Your task to perform on an android device: turn on the 12-hour format for clock Image 0: 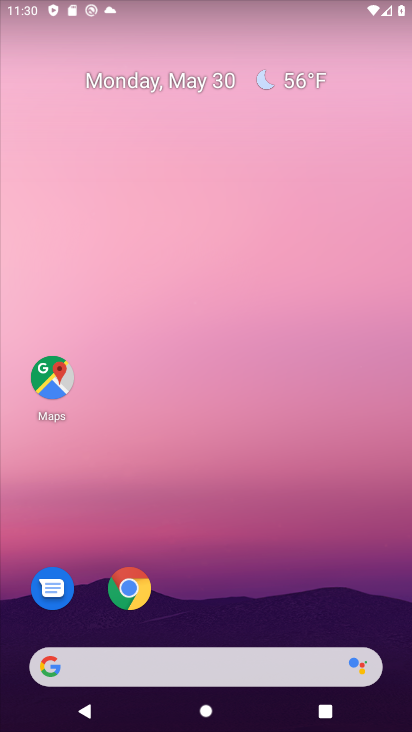
Step 0: drag from (204, 591) to (220, 51)
Your task to perform on an android device: turn on the 12-hour format for clock Image 1: 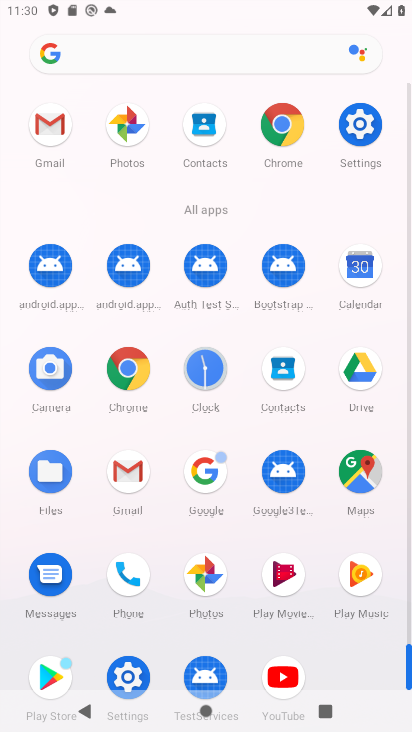
Step 1: click (202, 374)
Your task to perform on an android device: turn on the 12-hour format for clock Image 2: 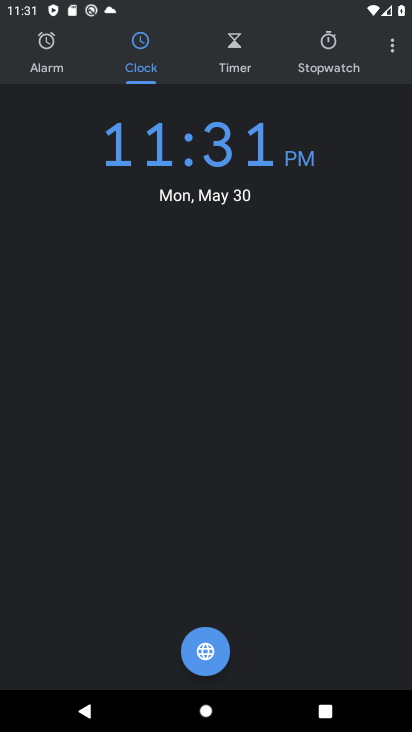
Step 2: click (390, 43)
Your task to perform on an android device: turn on the 12-hour format for clock Image 3: 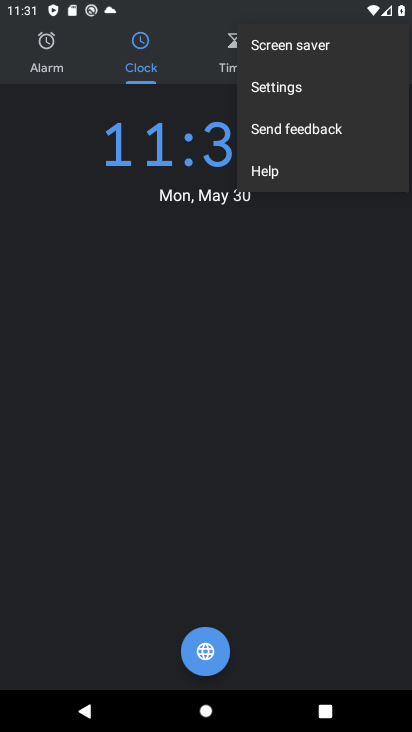
Step 3: click (315, 92)
Your task to perform on an android device: turn on the 12-hour format for clock Image 4: 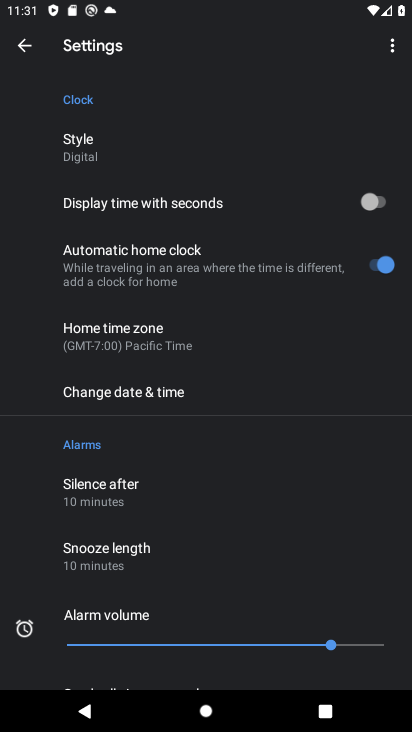
Step 4: click (86, 402)
Your task to perform on an android device: turn on the 12-hour format for clock Image 5: 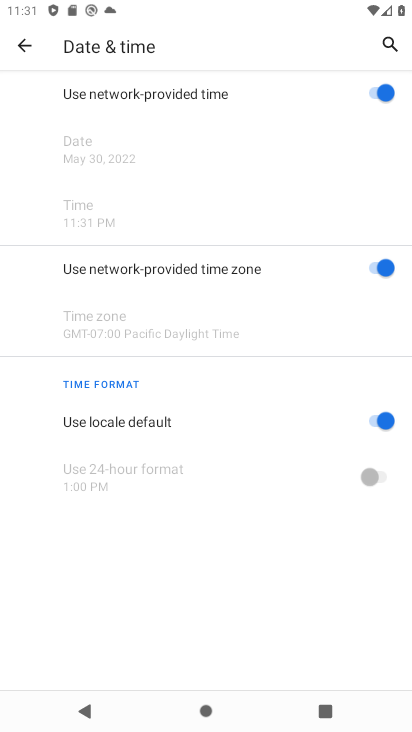
Step 5: click (375, 428)
Your task to perform on an android device: turn on the 12-hour format for clock Image 6: 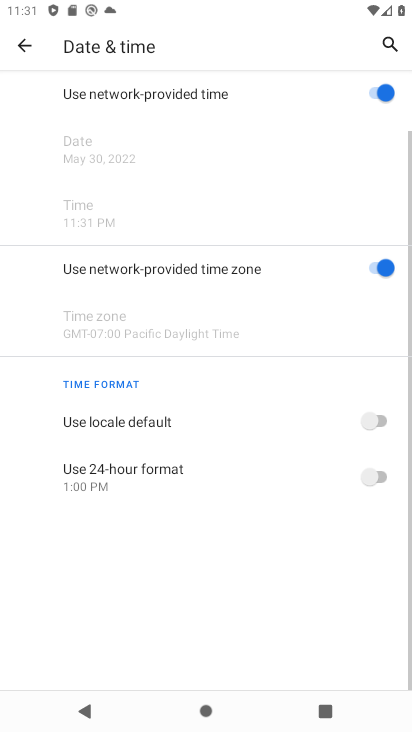
Step 6: click (385, 428)
Your task to perform on an android device: turn on the 12-hour format for clock Image 7: 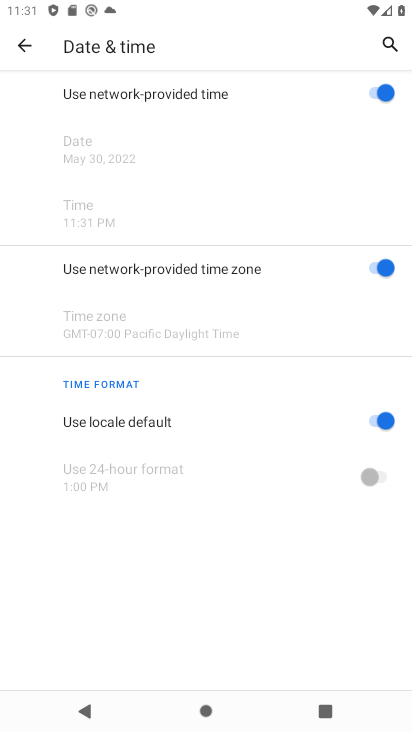
Step 7: task complete